Your task to perform on an android device: delete browsing data in the chrome app Image 0: 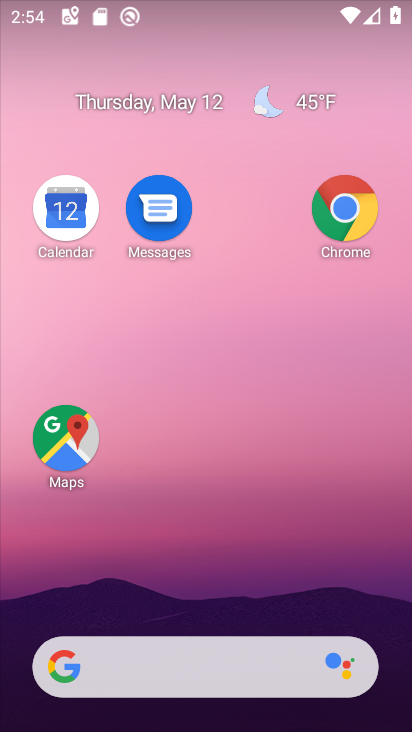
Step 0: drag from (206, 583) to (355, 59)
Your task to perform on an android device: delete browsing data in the chrome app Image 1: 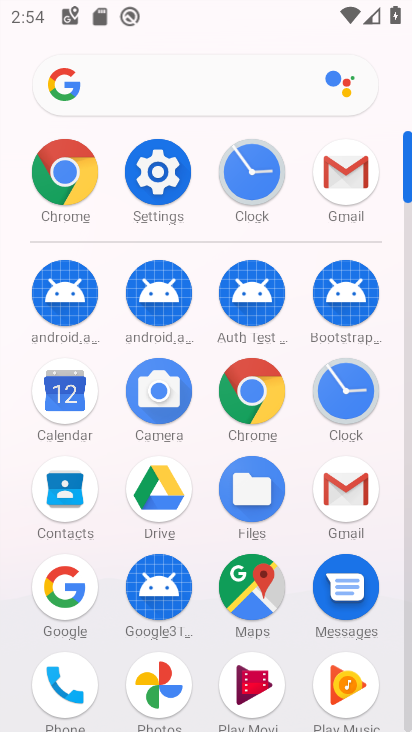
Step 1: click (252, 371)
Your task to perform on an android device: delete browsing data in the chrome app Image 2: 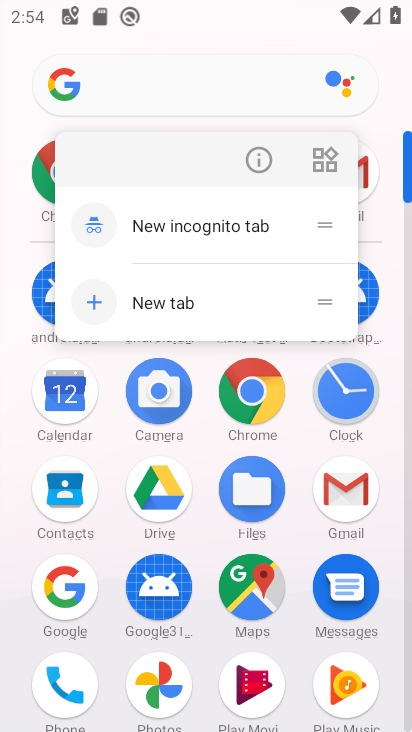
Step 2: click (254, 163)
Your task to perform on an android device: delete browsing data in the chrome app Image 3: 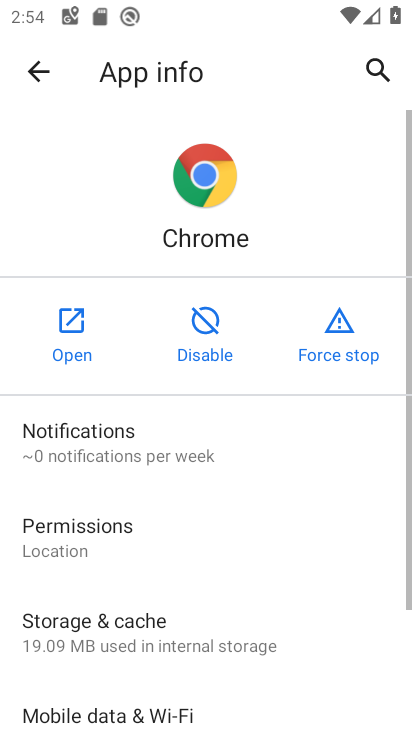
Step 3: click (80, 347)
Your task to perform on an android device: delete browsing data in the chrome app Image 4: 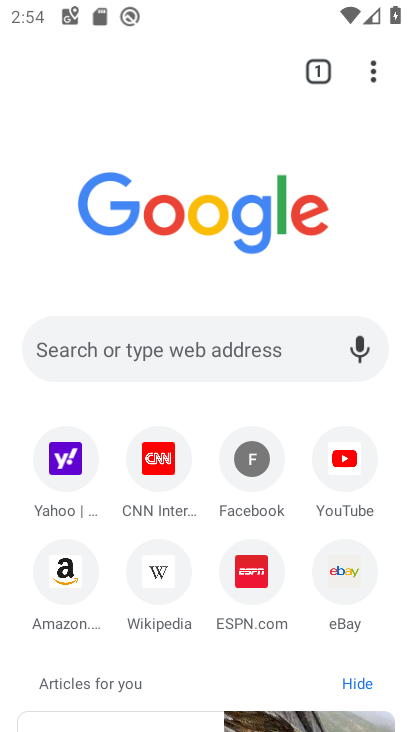
Step 4: drag from (368, 82) to (158, 599)
Your task to perform on an android device: delete browsing data in the chrome app Image 5: 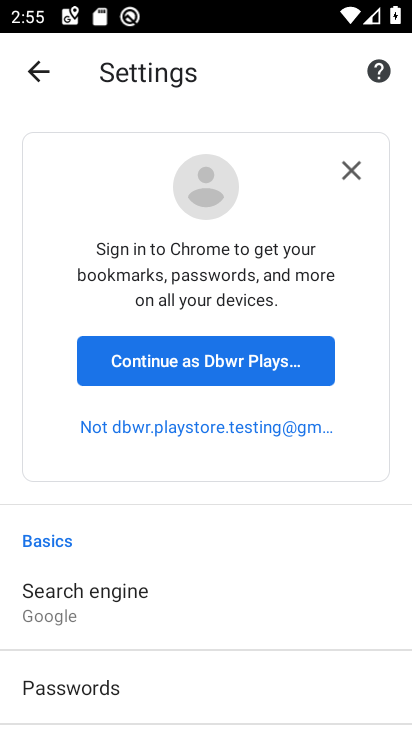
Step 5: drag from (212, 661) to (332, 98)
Your task to perform on an android device: delete browsing data in the chrome app Image 6: 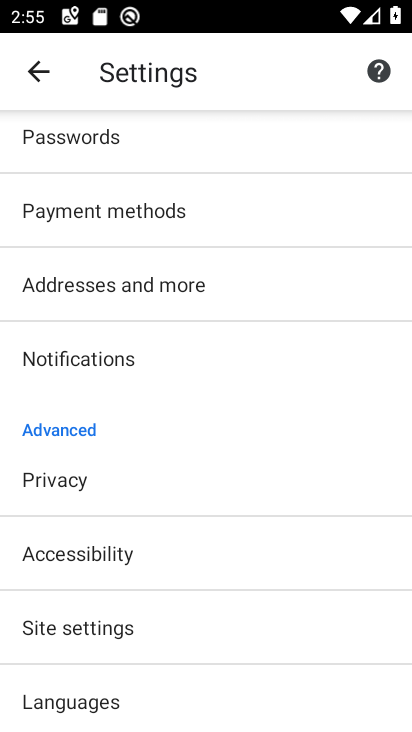
Step 6: click (43, 68)
Your task to perform on an android device: delete browsing data in the chrome app Image 7: 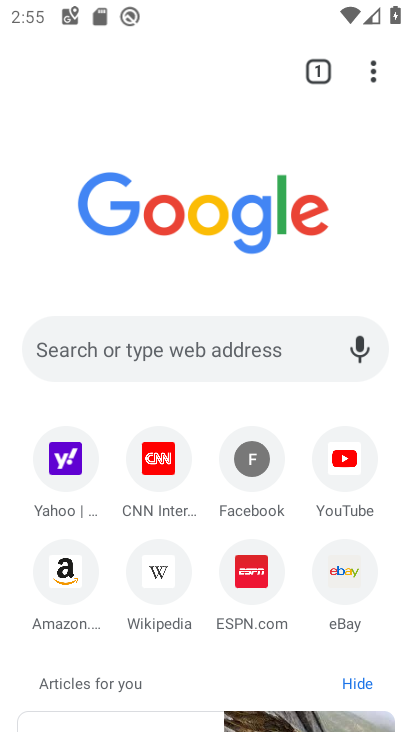
Step 7: drag from (377, 73) to (145, 410)
Your task to perform on an android device: delete browsing data in the chrome app Image 8: 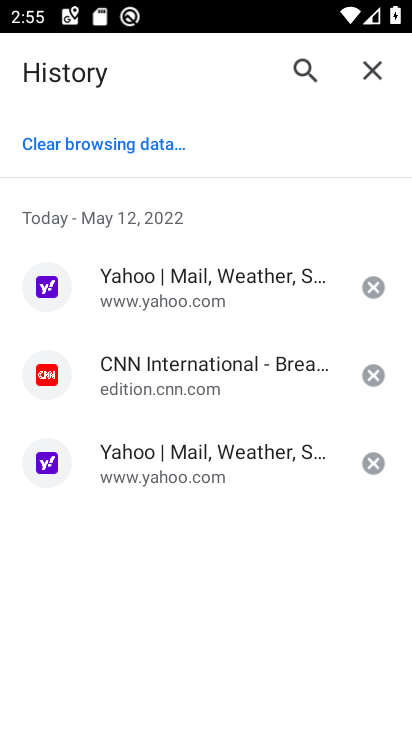
Step 8: click (81, 140)
Your task to perform on an android device: delete browsing data in the chrome app Image 9: 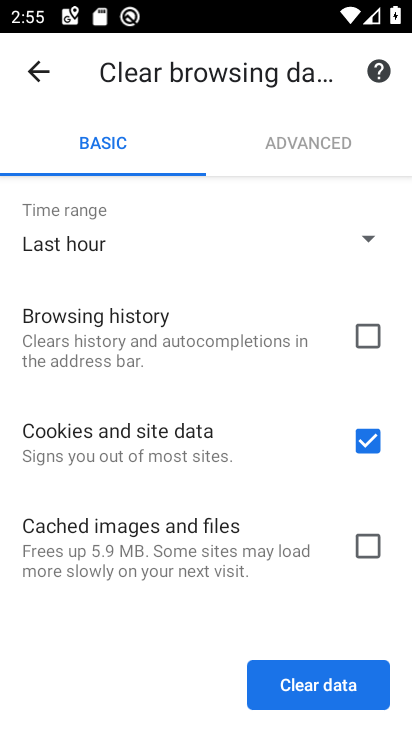
Step 9: click (378, 339)
Your task to perform on an android device: delete browsing data in the chrome app Image 10: 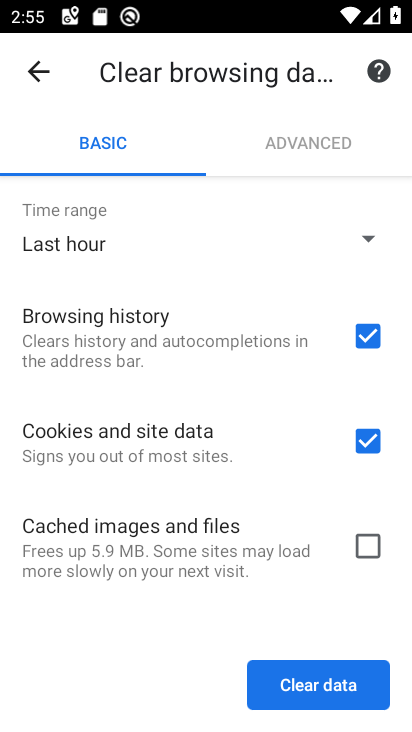
Step 10: click (314, 680)
Your task to perform on an android device: delete browsing data in the chrome app Image 11: 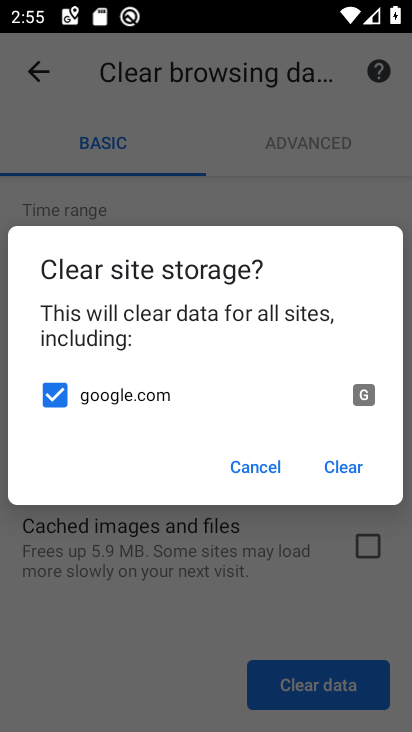
Step 11: task complete